Your task to perform on an android device: turn off data saver in the chrome app Image 0: 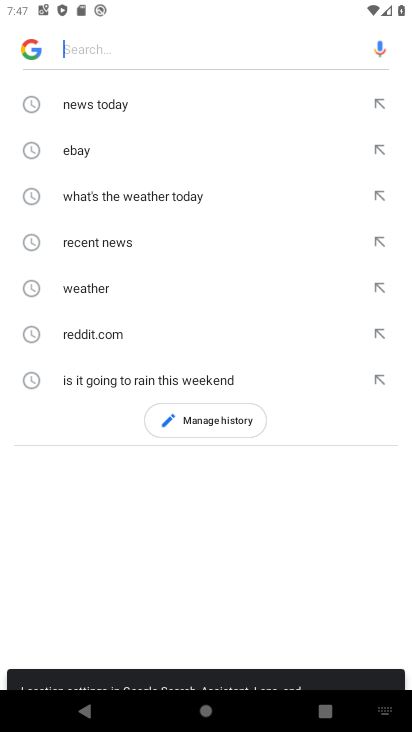
Step 0: press home button
Your task to perform on an android device: turn off data saver in the chrome app Image 1: 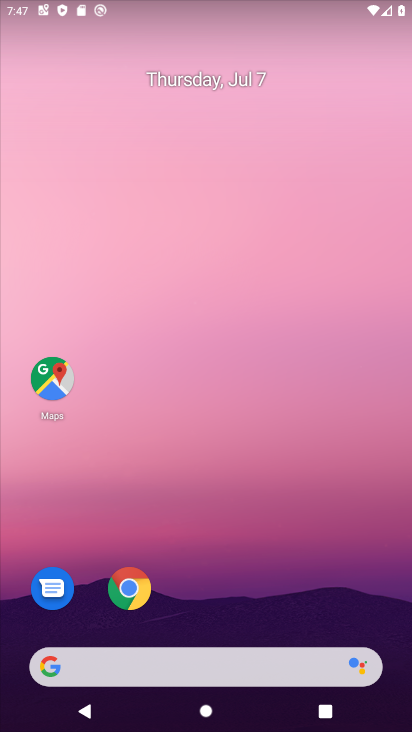
Step 1: drag from (179, 606) to (144, 171)
Your task to perform on an android device: turn off data saver in the chrome app Image 2: 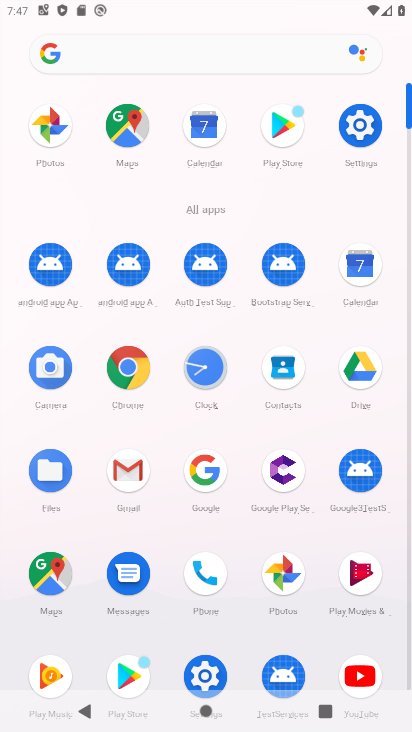
Step 2: click (134, 377)
Your task to perform on an android device: turn off data saver in the chrome app Image 3: 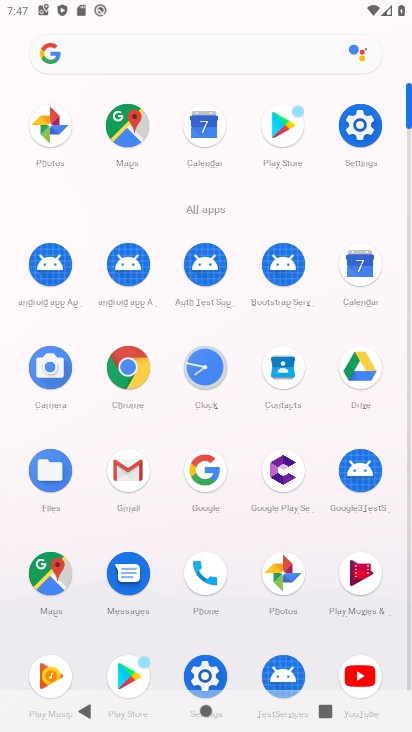
Step 3: click (134, 377)
Your task to perform on an android device: turn off data saver in the chrome app Image 4: 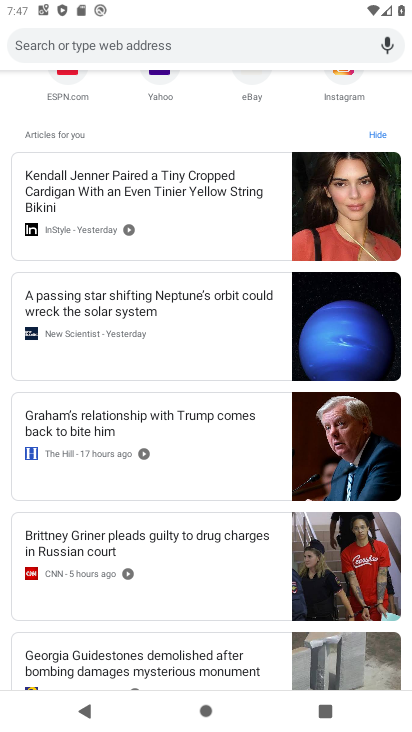
Step 4: drag from (154, 148) to (270, 711)
Your task to perform on an android device: turn off data saver in the chrome app Image 5: 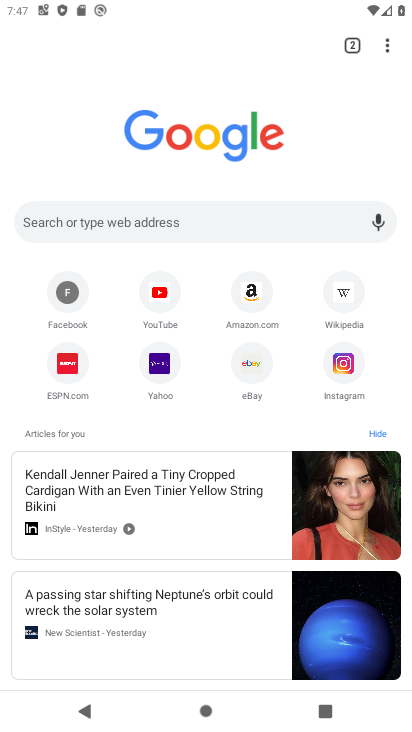
Step 5: drag from (186, 573) to (232, 140)
Your task to perform on an android device: turn off data saver in the chrome app Image 6: 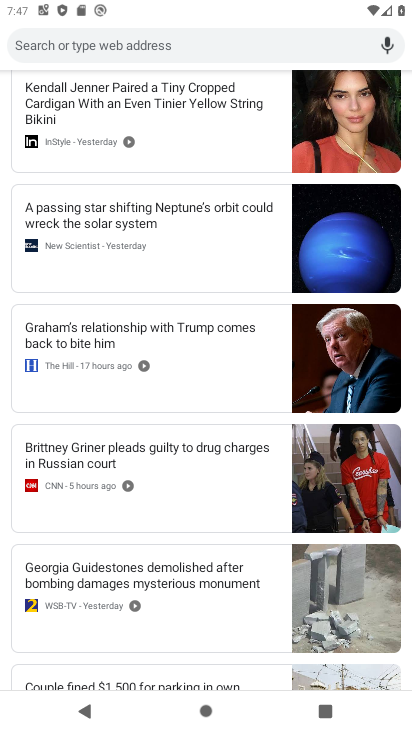
Step 6: drag from (234, 130) to (199, 709)
Your task to perform on an android device: turn off data saver in the chrome app Image 7: 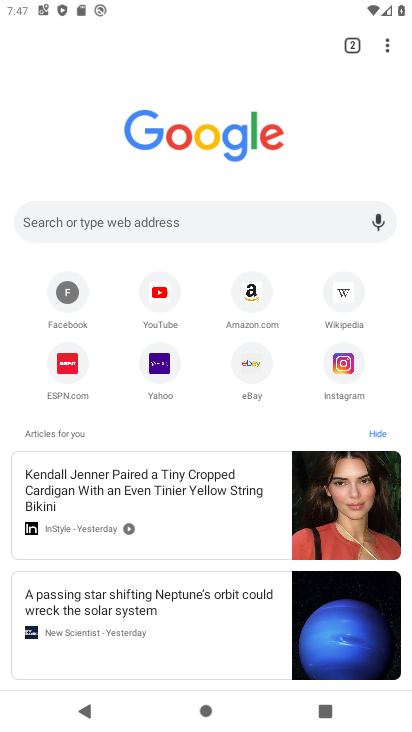
Step 7: click (386, 60)
Your task to perform on an android device: turn off data saver in the chrome app Image 8: 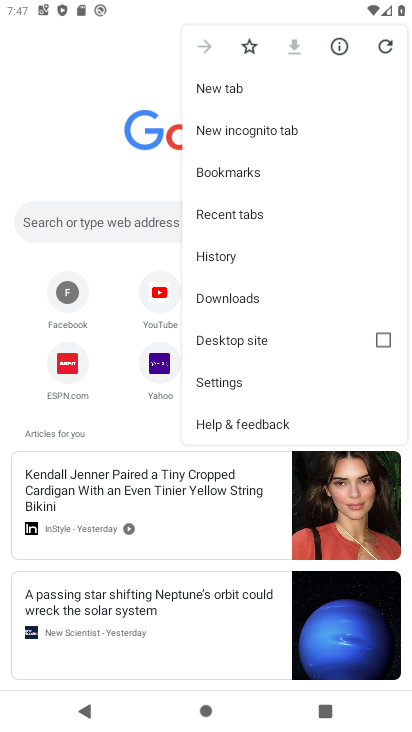
Step 8: click (253, 370)
Your task to perform on an android device: turn off data saver in the chrome app Image 9: 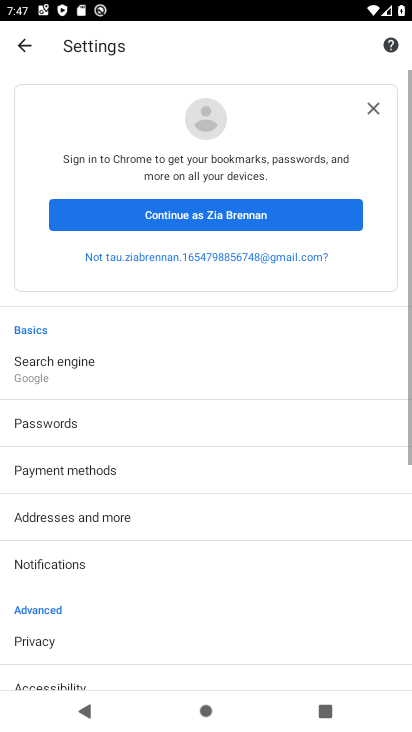
Step 9: drag from (181, 523) to (252, 253)
Your task to perform on an android device: turn off data saver in the chrome app Image 10: 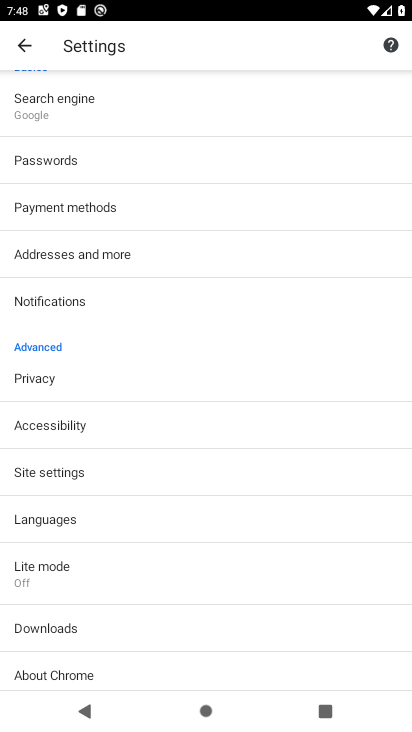
Step 10: drag from (139, 578) to (224, 323)
Your task to perform on an android device: turn off data saver in the chrome app Image 11: 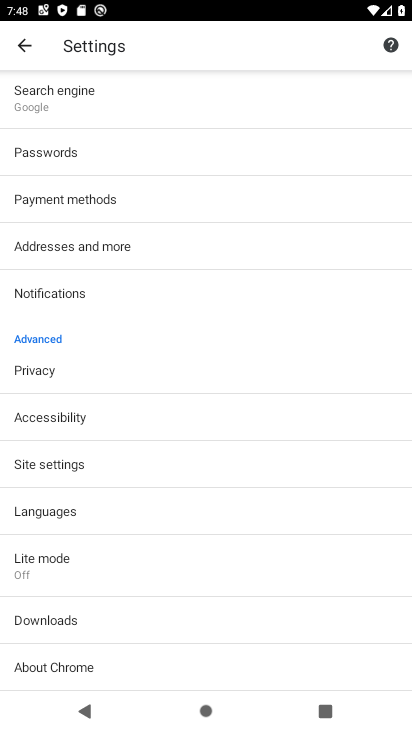
Step 11: click (78, 553)
Your task to perform on an android device: turn off data saver in the chrome app Image 12: 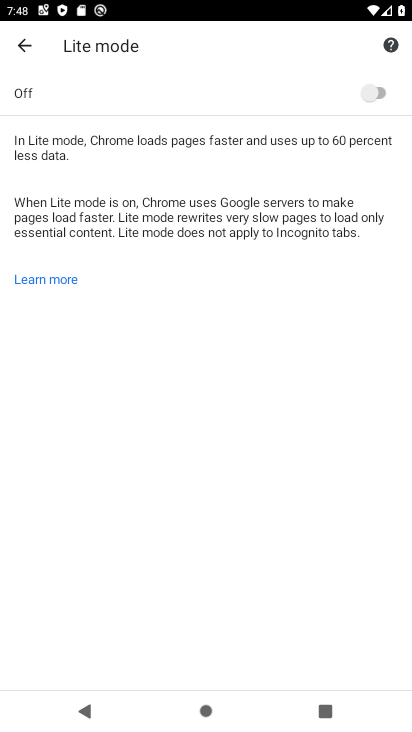
Step 12: task complete